Your task to perform on an android device: Go to ESPN.com Image 0: 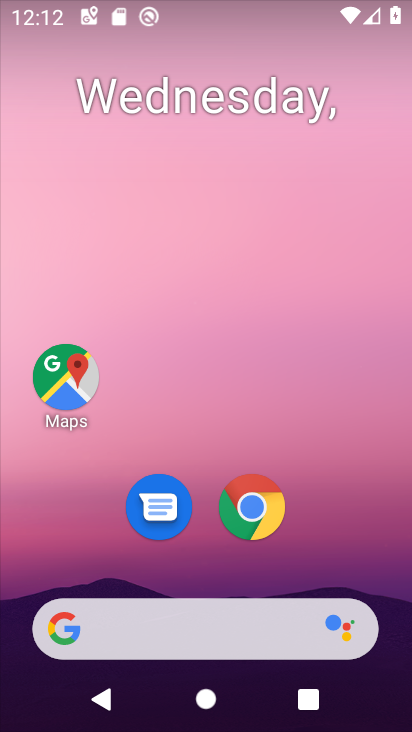
Step 0: drag from (267, 681) to (210, 7)
Your task to perform on an android device: Go to ESPN.com Image 1: 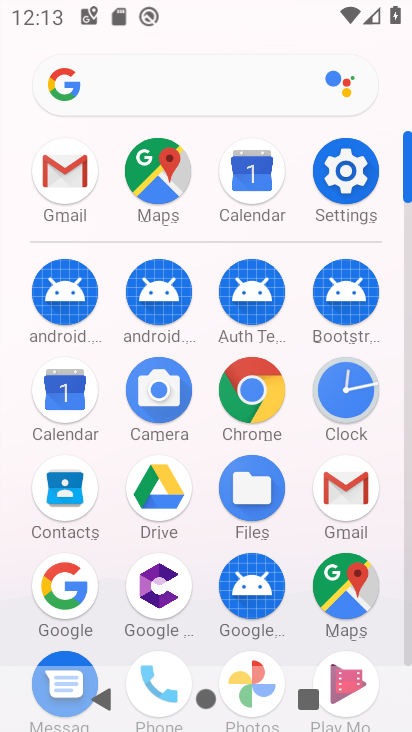
Step 1: click (266, 395)
Your task to perform on an android device: Go to ESPN.com Image 2: 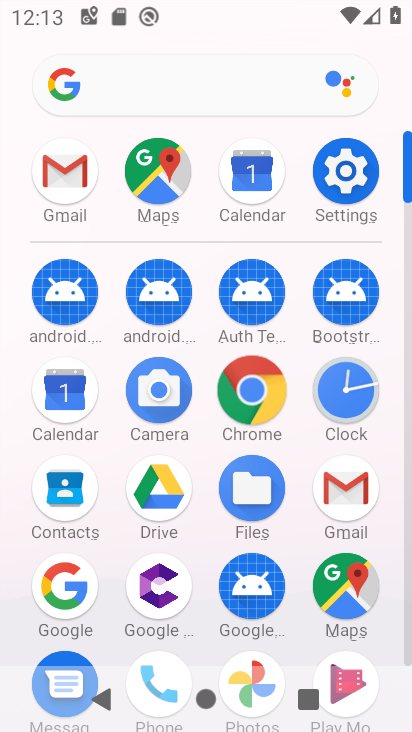
Step 2: click (262, 391)
Your task to perform on an android device: Go to ESPN.com Image 3: 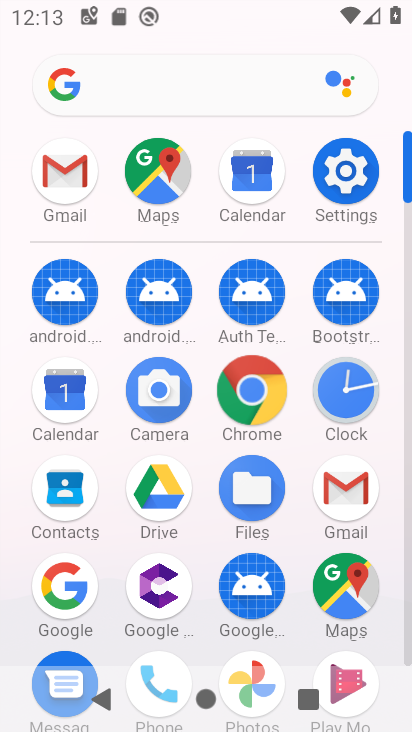
Step 3: click (262, 391)
Your task to perform on an android device: Go to ESPN.com Image 4: 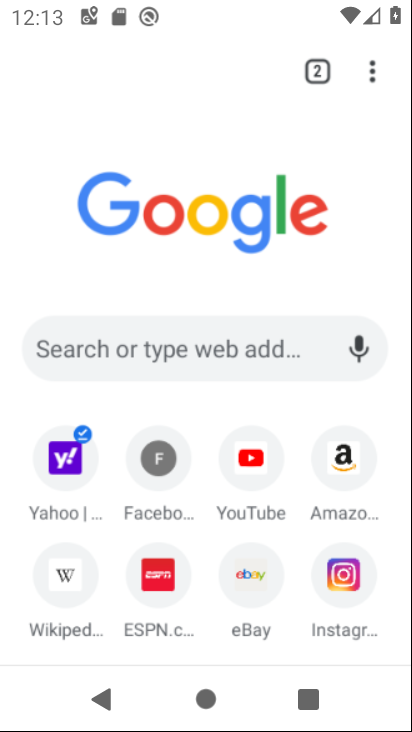
Step 4: click (259, 387)
Your task to perform on an android device: Go to ESPN.com Image 5: 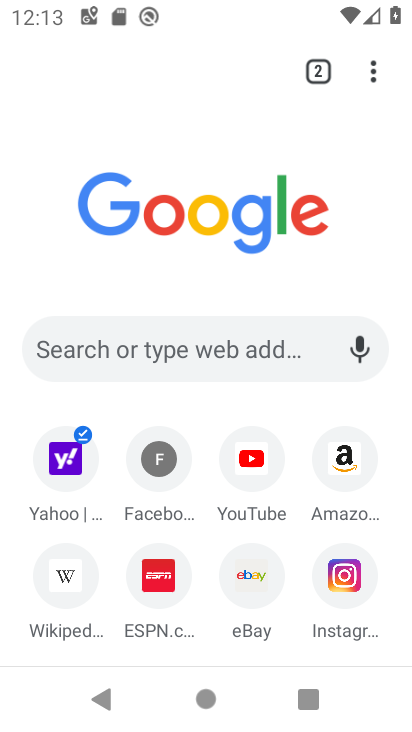
Step 5: click (140, 587)
Your task to perform on an android device: Go to ESPN.com Image 6: 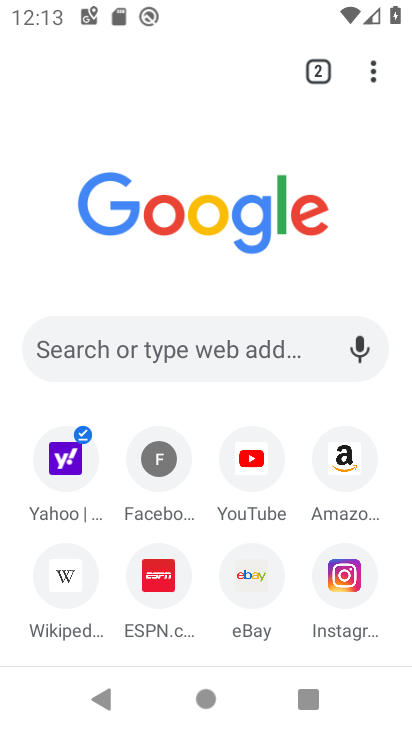
Step 6: click (140, 585)
Your task to perform on an android device: Go to ESPN.com Image 7: 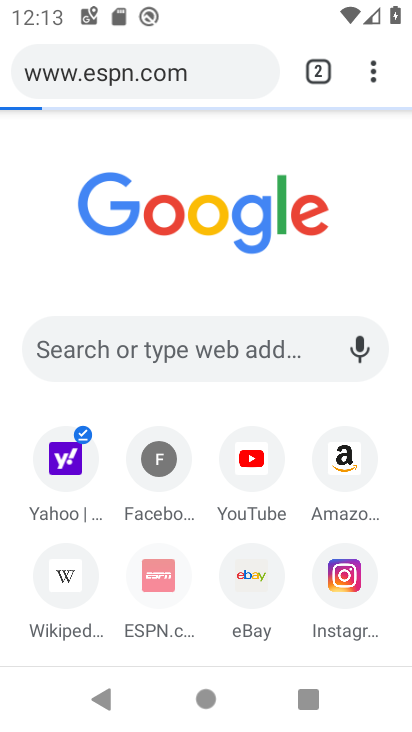
Step 7: click (147, 581)
Your task to perform on an android device: Go to ESPN.com Image 8: 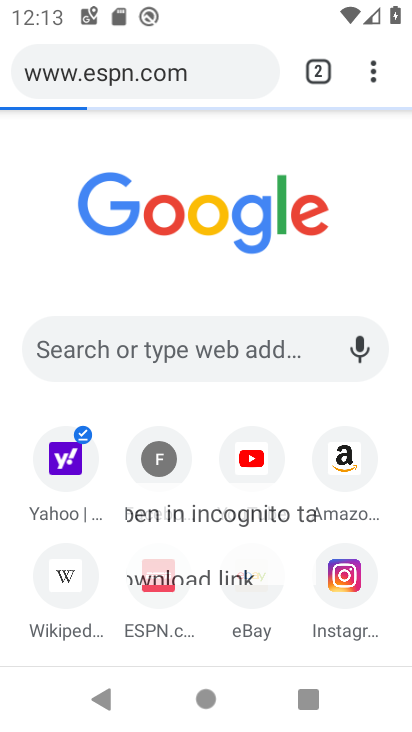
Step 8: click (148, 580)
Your task to perform on an android device: Go to ESPN.com Image 9: 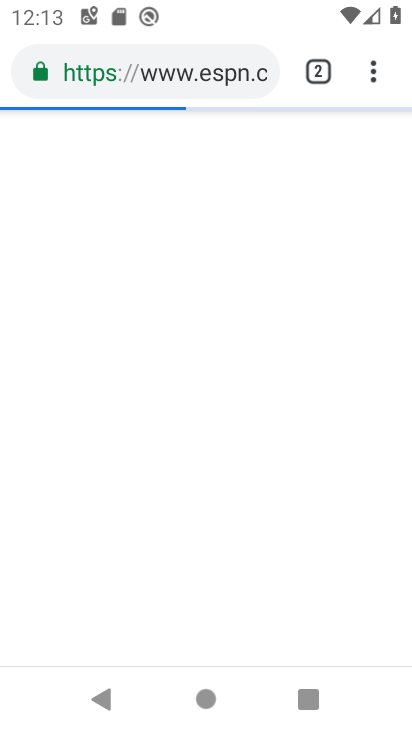
Step 9: click (152, 571)
Your task to perform on an android device: Go to ESPN.com Image 10: 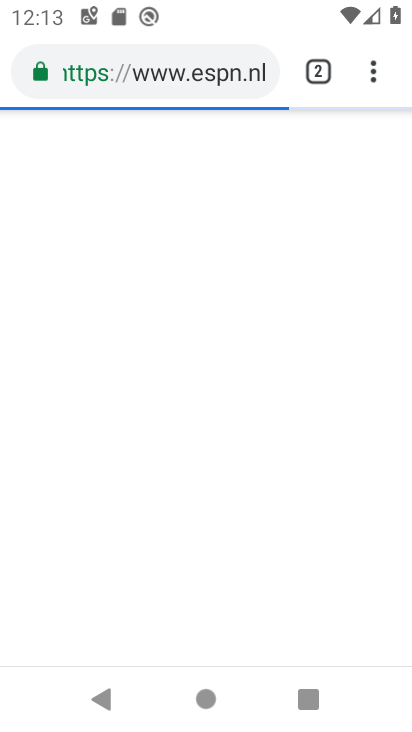
Step 10: task complete